Your task to perform on an android device: toggle data saver in the chrome app Image 0: 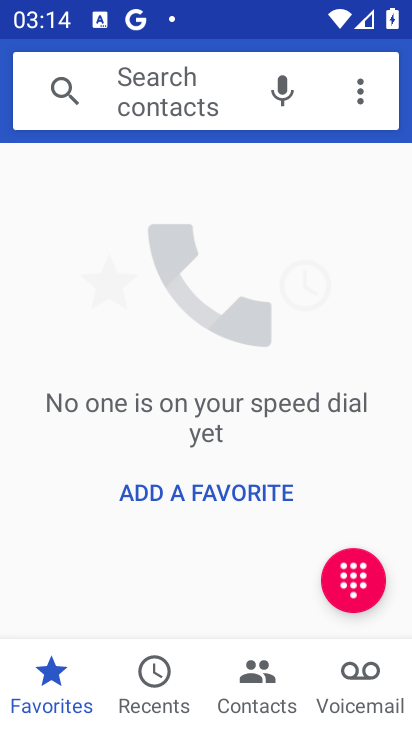
Step 0: press home button
Your task to perform on an android device: toggle data saver in the chrome app Image 1: 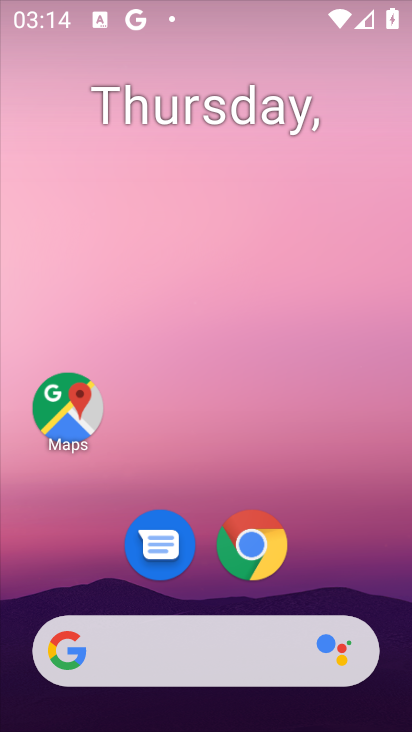
Step 1: click (263, 537)
Your task to perform on an android device: toggle data saver in the chrome app Image 2: 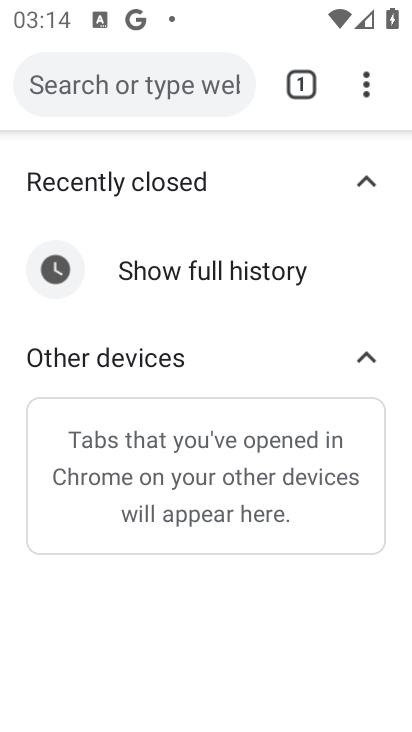
Step 2: click (374, 83)
Your task to perform on an android device: toggle data saver in the chrome app Image 3: 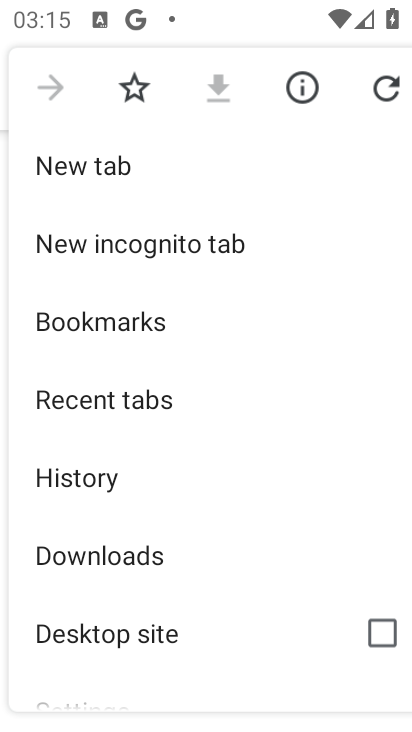
Step 3: click (143, 694)
Your task to perform on an android device: toggle data saver in the chrome app Image 4: 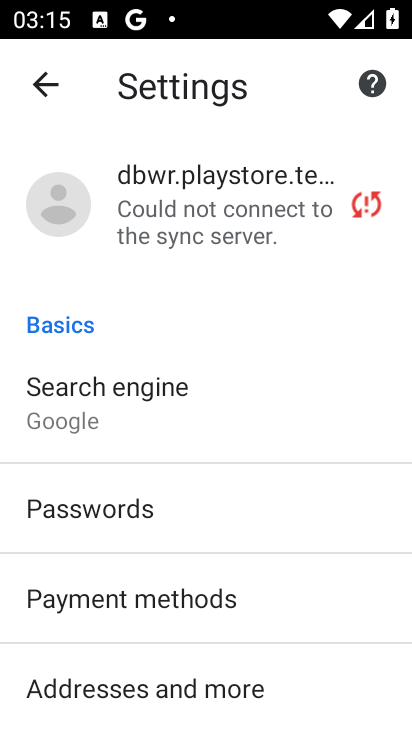
Step 4: drag from (273, 492) to (192, 26)
Your task to perform on an android device: toggle data saver in the chrome app Image 5: 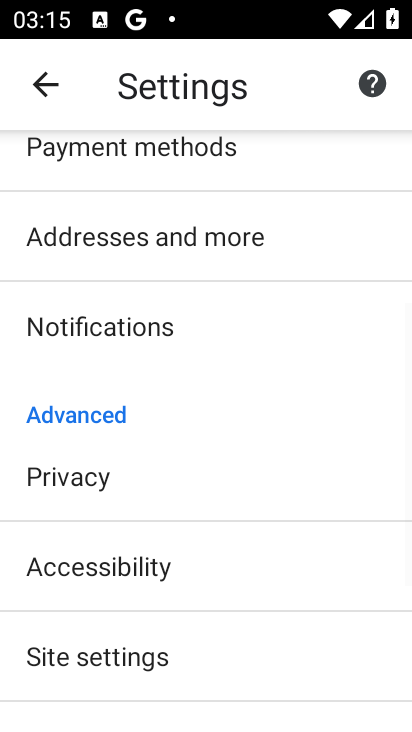
Step 5: drag from (136, 692) to (186, 149)
Your task to perform on an android device: toggle data saver in the chrome app Image 6: 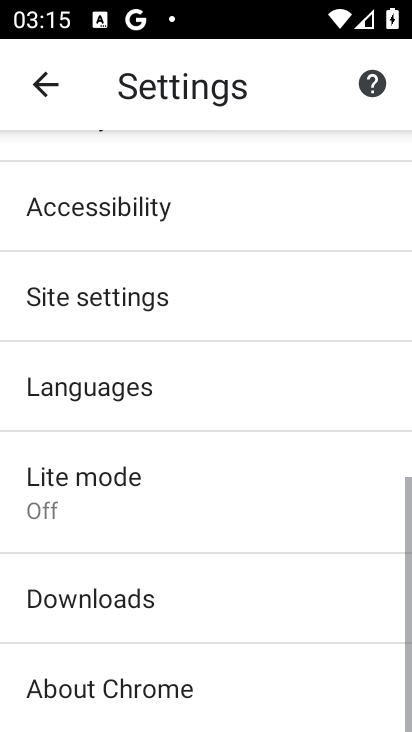
Step 6: click (121, 489)
Your task to perform on an android device: toggle data saver in the chrome app Image 7: 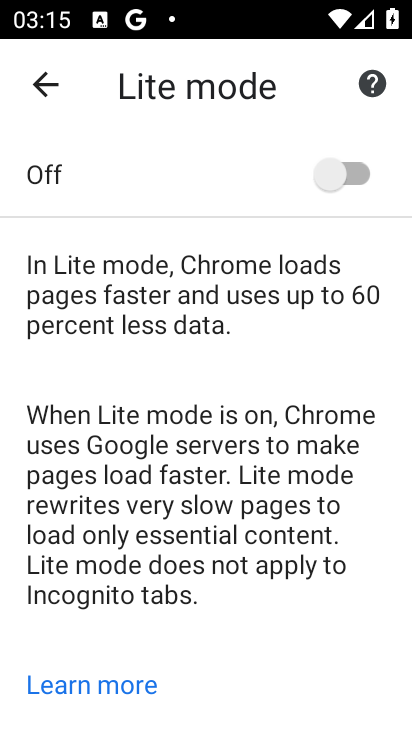
Step 7: click (339, 172)
Your task to perform on an android device: toggle data saver in the chrome app Image 8: 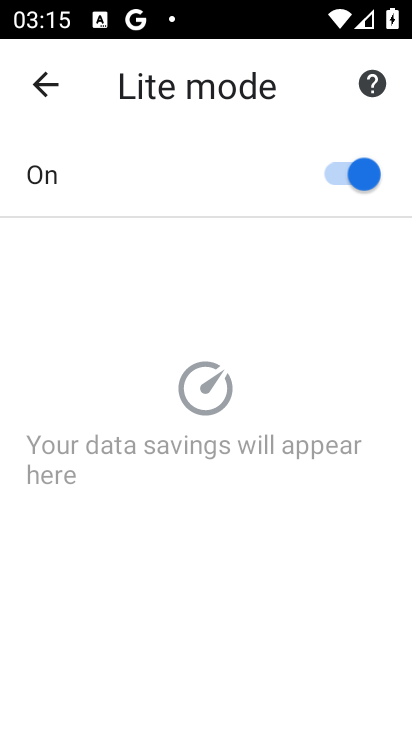
Step 8: task complete